Your task to perform on an android device: Go to location settings Image 0: 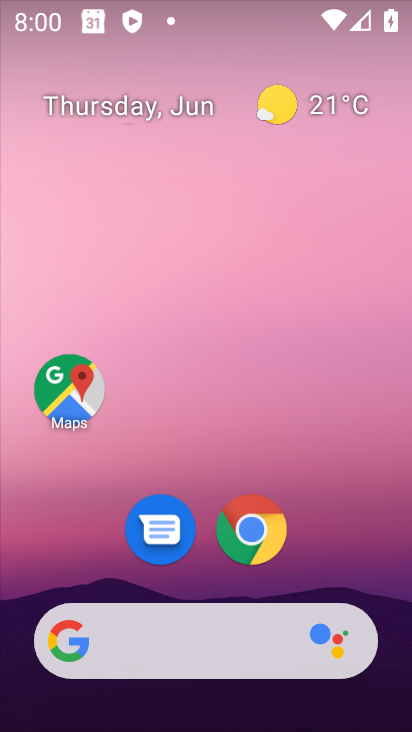
Step 0: drag from (392, 693) to (355, 314)
Your task to perform on an android device: Go to location settings Image 1: 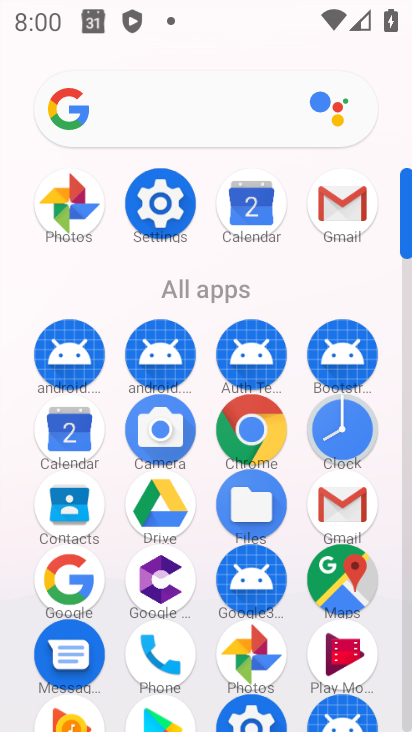
Step 1: click (168, 211)
Your task to perform on an android device: Go to location settings Image 2: 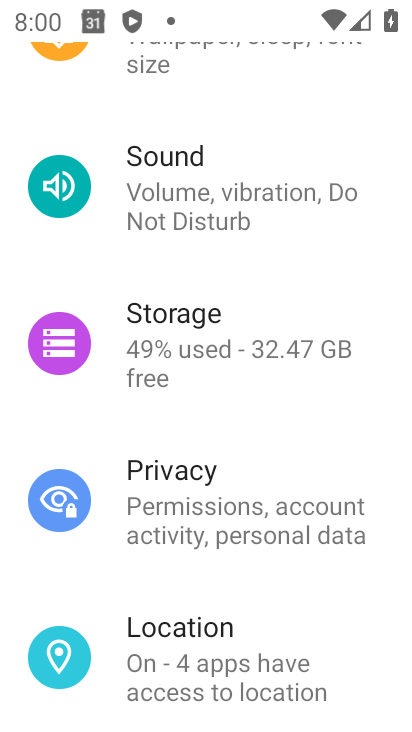
Step 2: click (177, 647)
Your task to perform on an android device: Go to location settings Image 3: 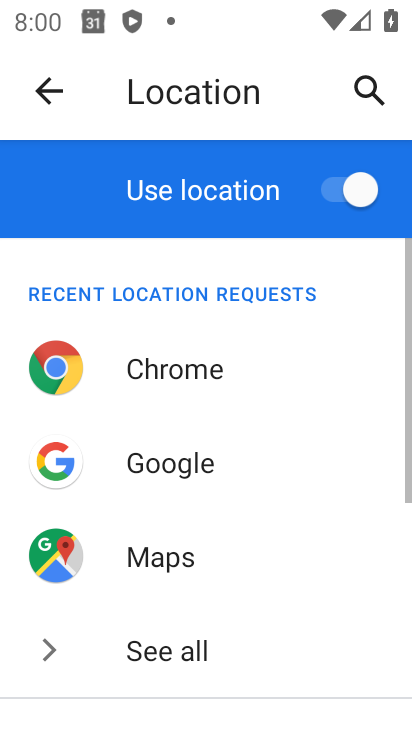
Step 3: drag from (322, 638) to (307, 256)
Your task to perform on an android device: Go to location settings Image 4: 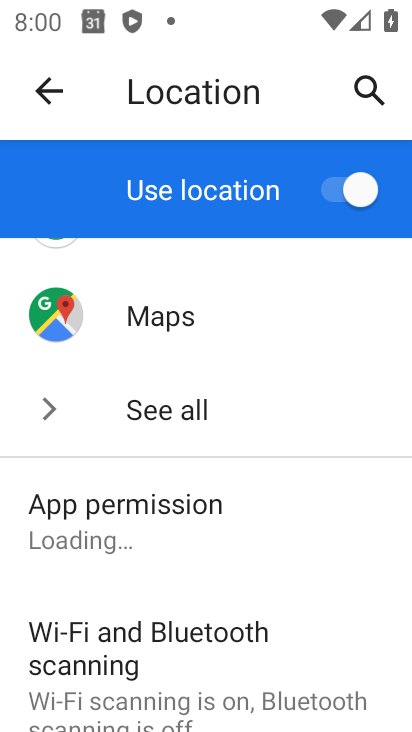
Step 4: drag from (295, 584) to (277, 164)
Your task to perform on an android device: Go to location settings Image 5: 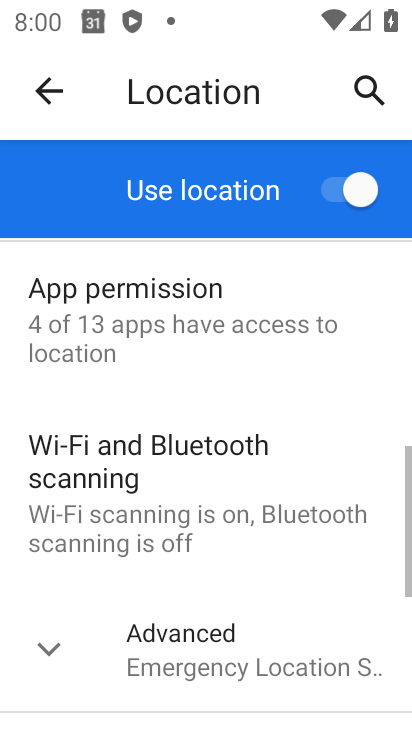
Step 5: click (38, 651)
Your task to perform on an android device: Go to location settings Image 6: 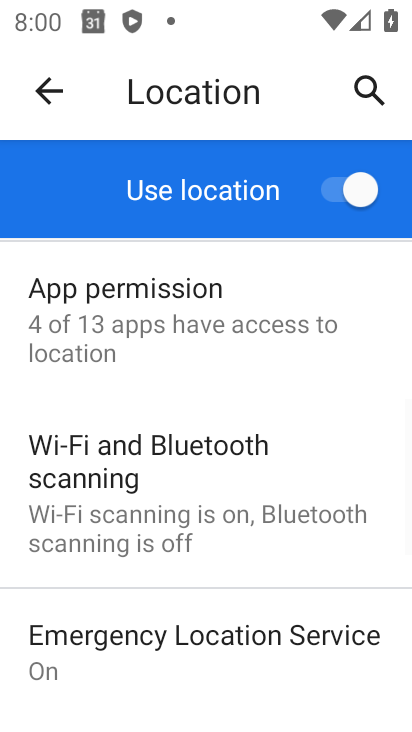
Step 6: task complete